Your task to perform on an android device: Go to CNN.com Image 0: 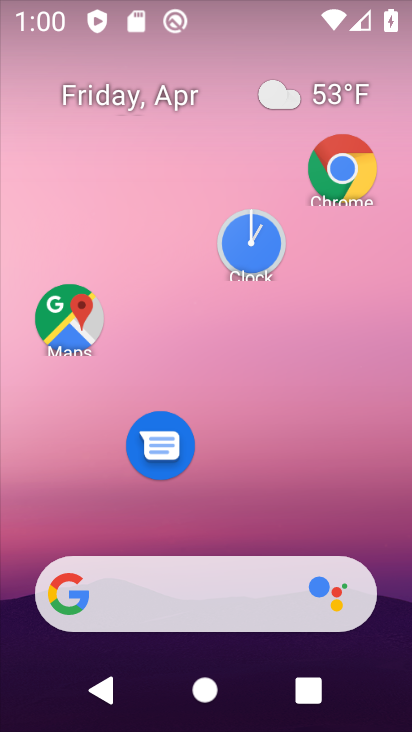
Step 0: click (349, 204)
Your task to perform on an android device: Go to CNN.com Image 1: 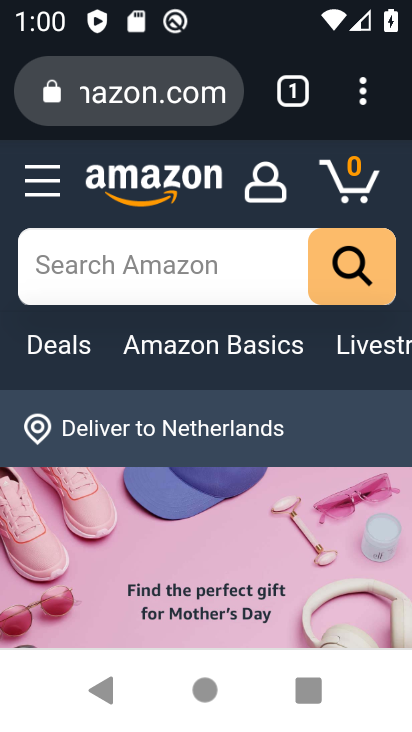
Step 1: click (186, 100)
Your task to perform on an android device: Go to CNN.com Image 2: 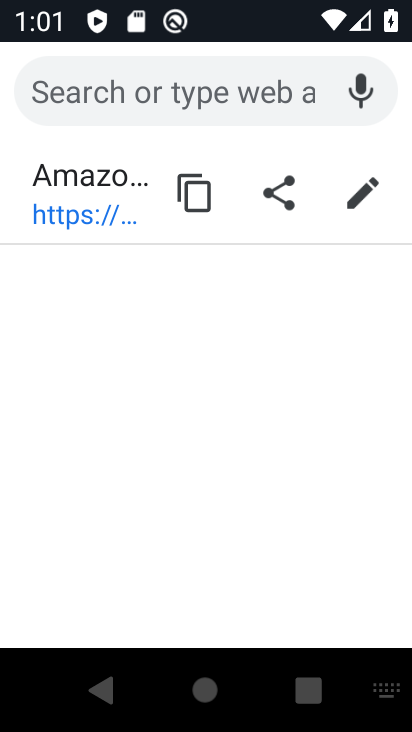
Step 2: type "cnn.com"
Your task to perform on an android device: Go to CNN.com Image 3: 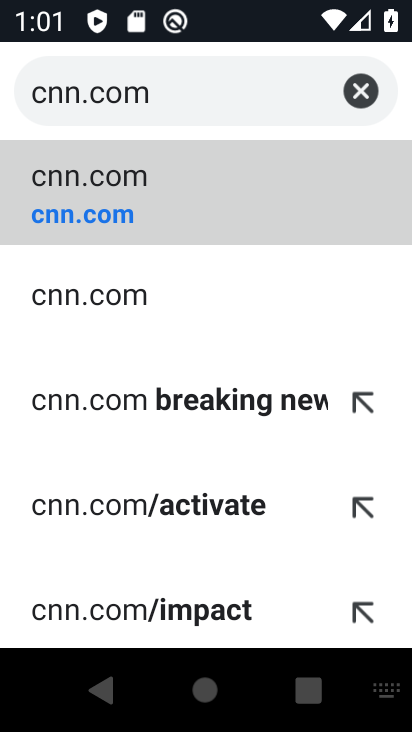
Step 3: click (129, 221)
Your task to perform on an android device: Go to CNN.com Image 4: 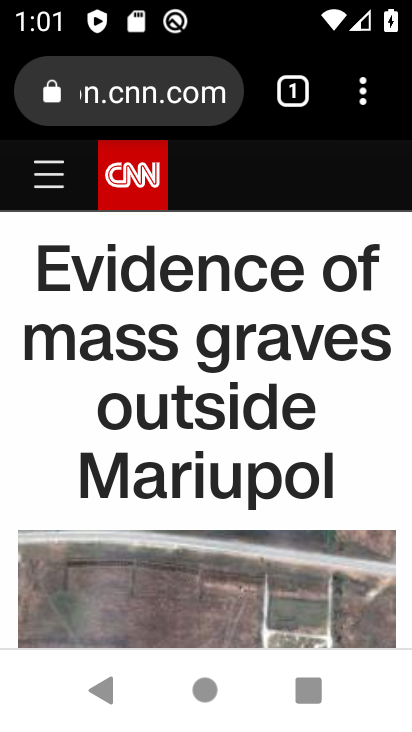
Step 4: task complete